Your task to perform on an android device: Open Google Image 0: 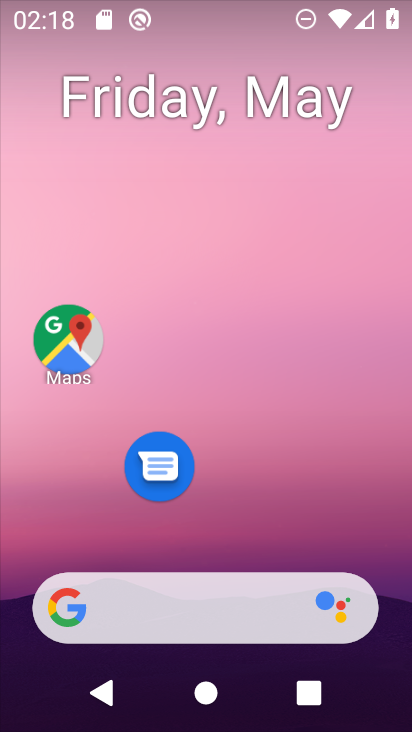
Step 0: drag from (331, 528) to (282, 6)
Your task to perform on an android device: Open Google Image 1: 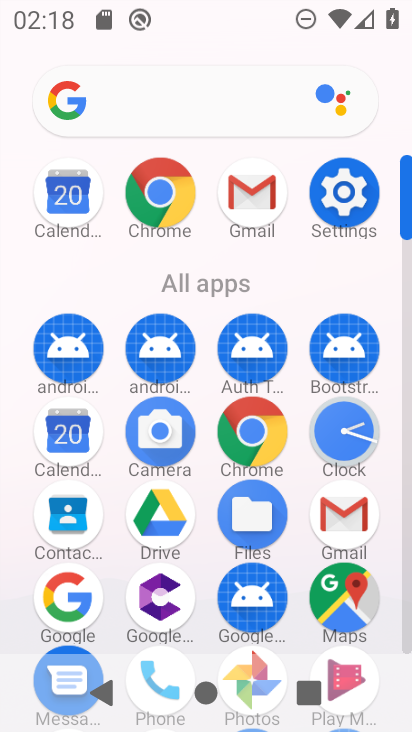
Step 1: click (164, 186)
Your task to perform on an android device: Open Google Image 2: 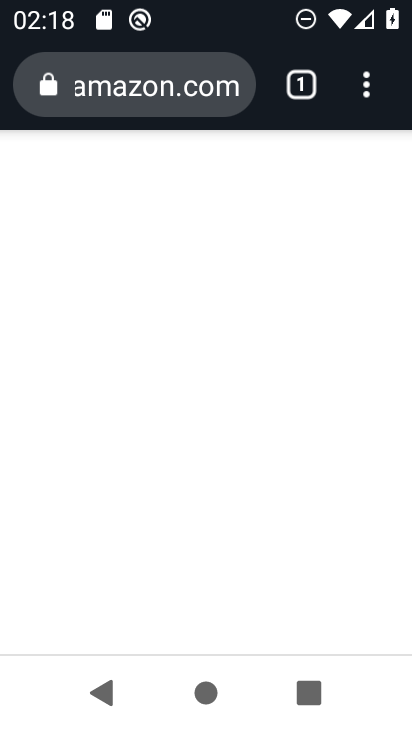
Step 2: task complete